Your task to perform on an android device: check storage Image 0: 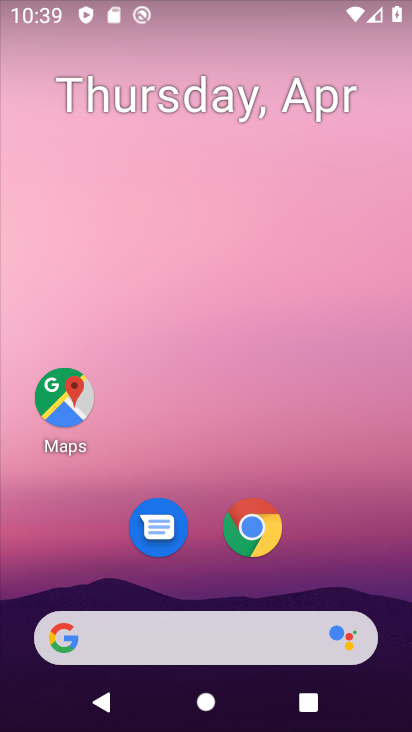
Step 0: click (407, 533)
Your task to perform on an android device: check storage Image 1: 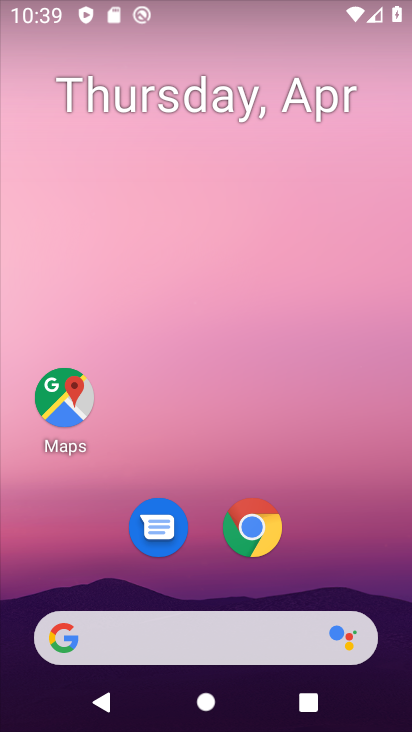
Step 1: drag from (362, 556) to (385, 182)
Your task to perform on an android device: check storage Image 2: 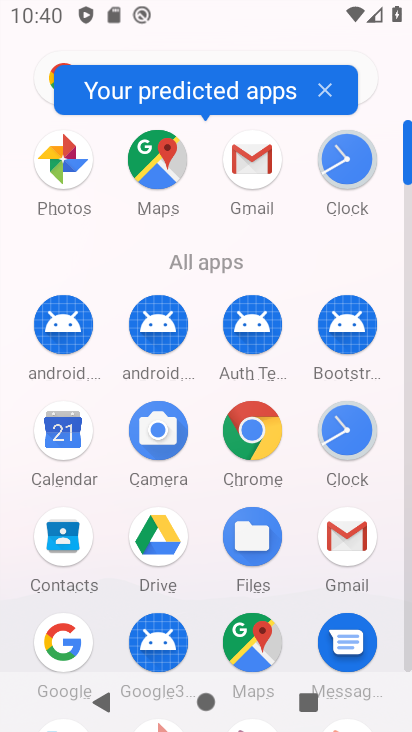
Step 2: drag from (382, 487) to (385, 230)
Your task to perform on an android device: check storage Image 3: 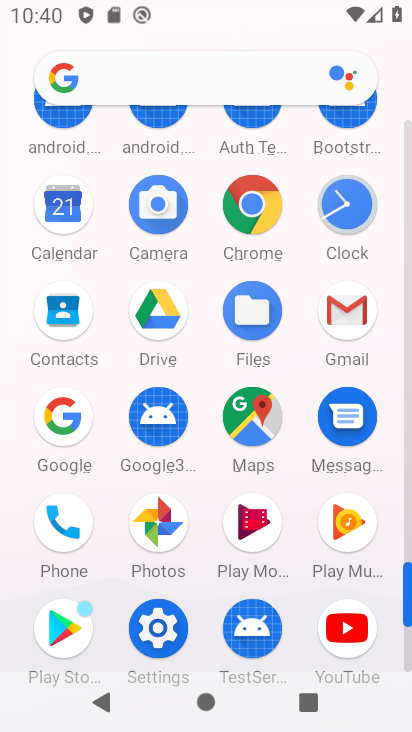
Step 3: click (161, 627)
Your task to perform on an android device: check storage Image 4: 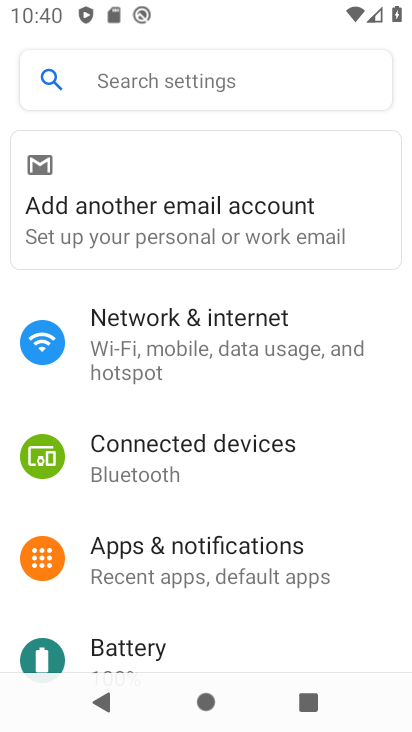
Step 4: drag from (363, 623) to (373, 403)
Your task to perform on an android device: check storage Image 5: 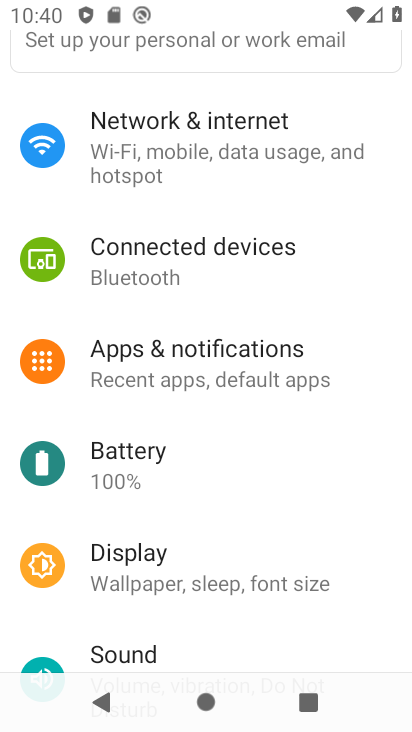
Step 5: drag from (358, 613) to (365, 345)
Your task to perform on an android device: check storage Image 6: 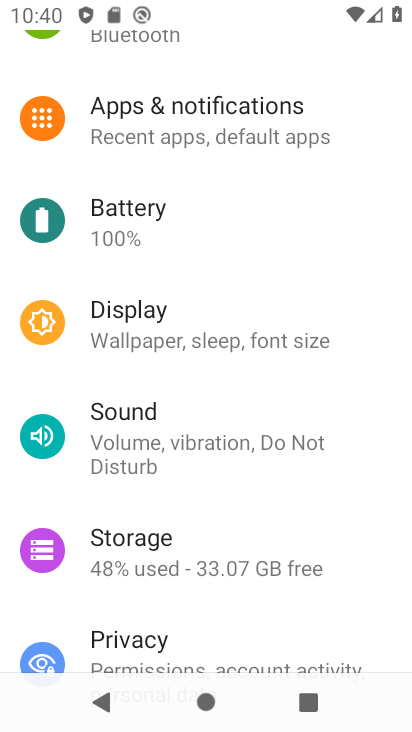
Step 6: drag from (368, 545) to (371, 390)
Your task to perform on an android device: check storage Image 7: 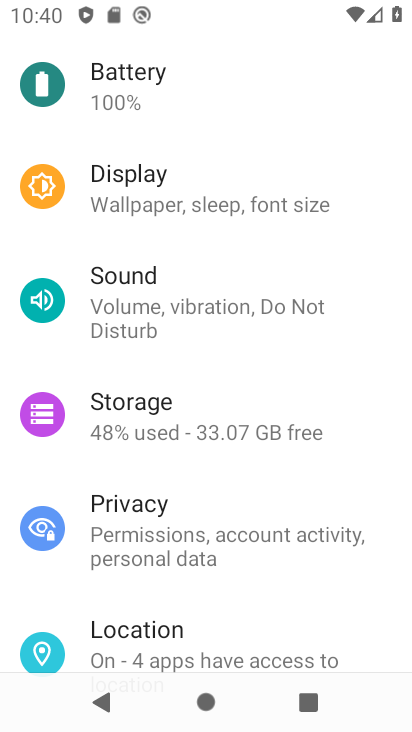
Step 7: click (211, 421)
Your task to perform on an android device: check storage Image 8: 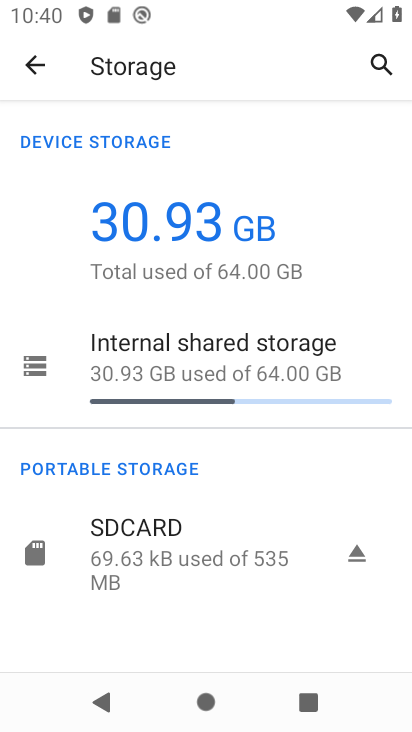
Step 8: task complete